Your task to perform on an android device: Go to Reddit.com Image 0: 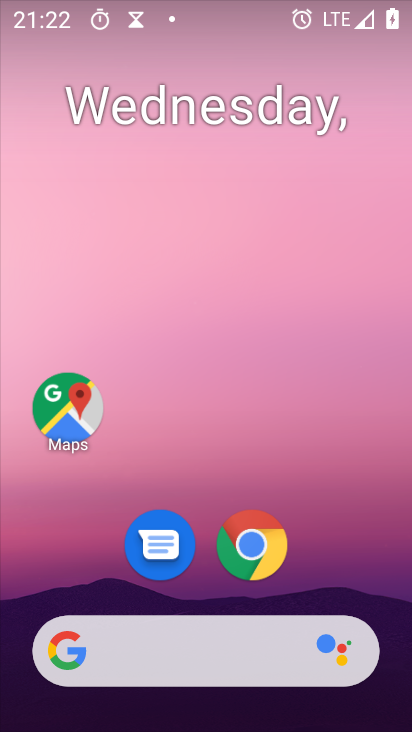
Step 0: press home button
Your task to perform on an android device: Go to Reddit.com Image 1: 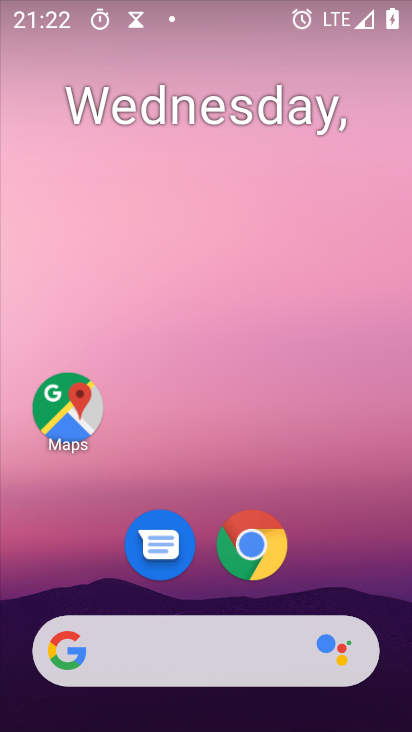
Step 1: click (260, 557)
Your task to perform on an android device: Go to Reddit.com Image 2: 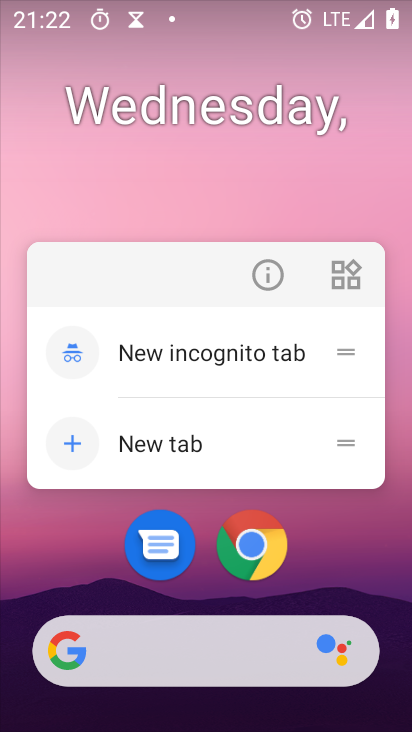
Step 2: click (243, 551)
Your task to perform on an android device: Go to Reddit.com Image 3: 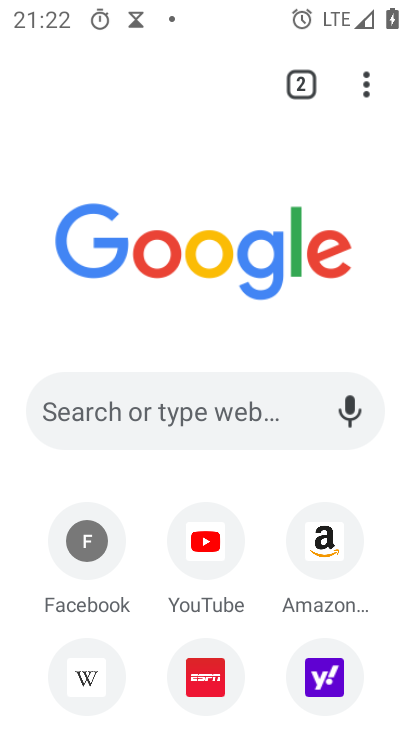
Step 3: click (123, 397)
Your task to perform on an android device: Go to Reddit.com Image 4: 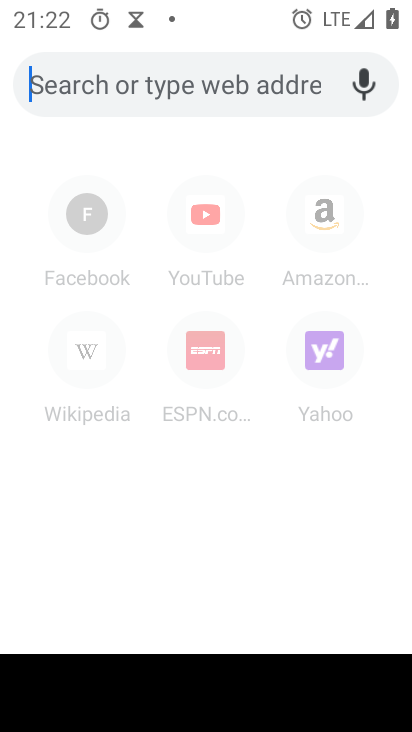
Step 4: type "reddit.com"
Your task to perform on an android device: Go to Reddit.com Image 5: 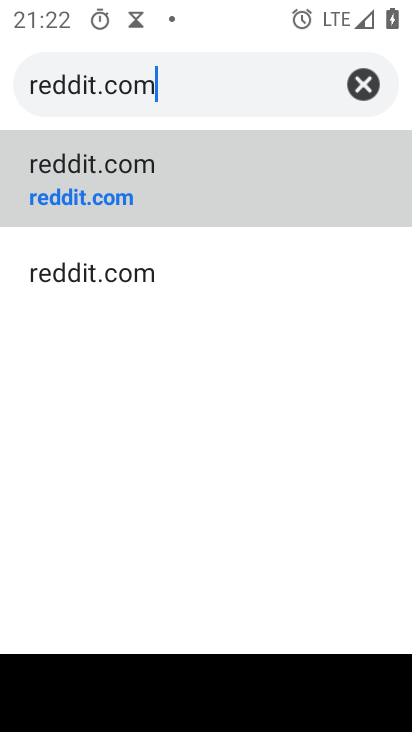
Step 5: click (105, 178)
Your task to perform on an android device: Go to Reddit.com Image 6: 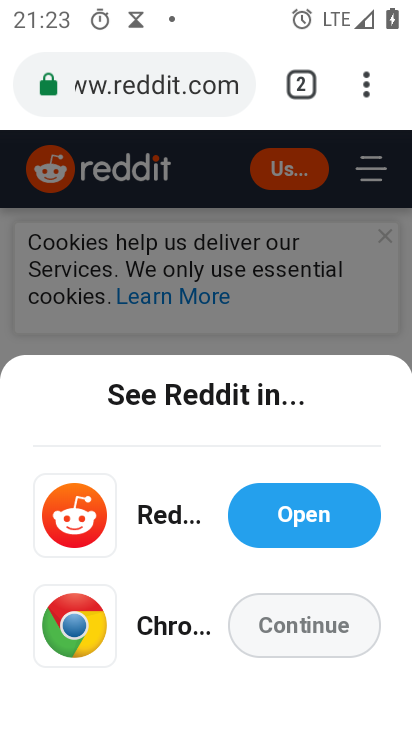
Step 6: task complete